Your task to perform on an android device: set the timer Image 0: 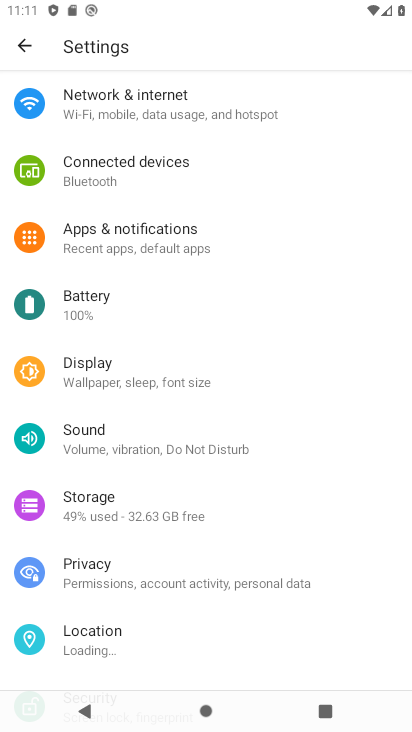
Step 0: drag from (190, 647) to (288, 405)
Your task to perform on an android device: set the timer Image 1: 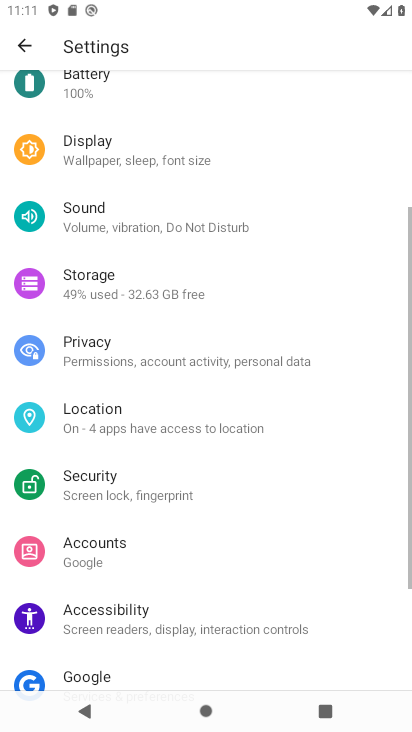
Step 1: press home button
Your task to perform on an android device: set the timer Image 2: 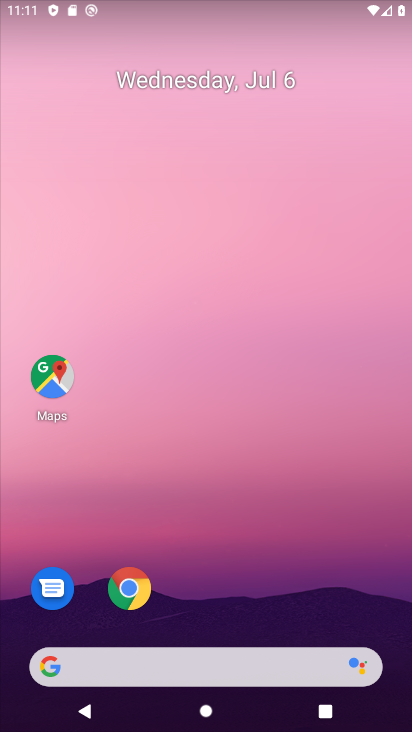
Step 2: drag from (205, 618) to (341, 176)
Your task to perform on an android device: set the timer Image 3: 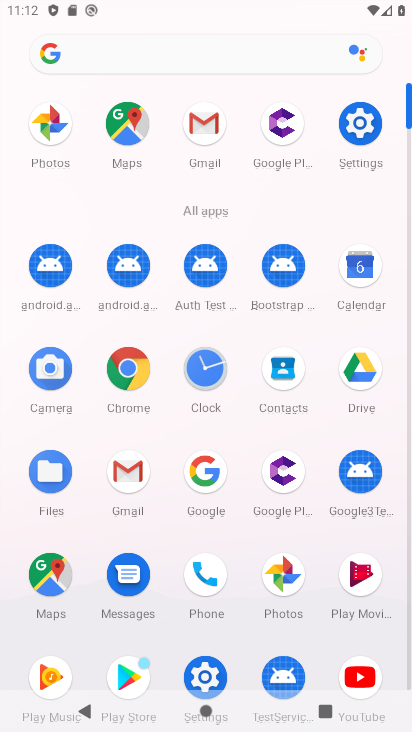
Step 3: click (193, 373)
Your task to perform on an android device: set the timer Image 4: 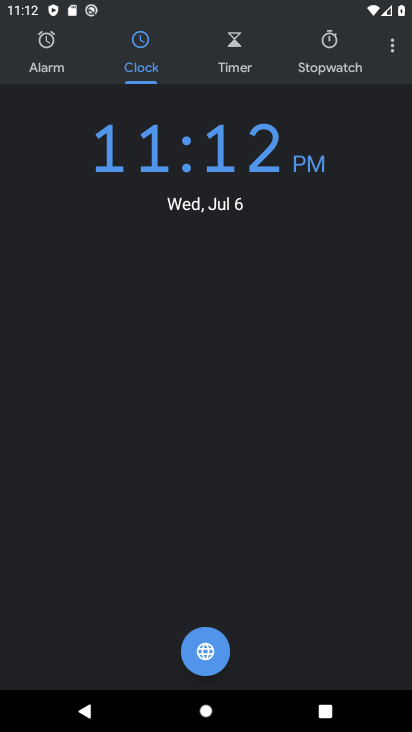
Step 4: click (260, 69)
Your task to perform on an android device: set the timer Image 5: 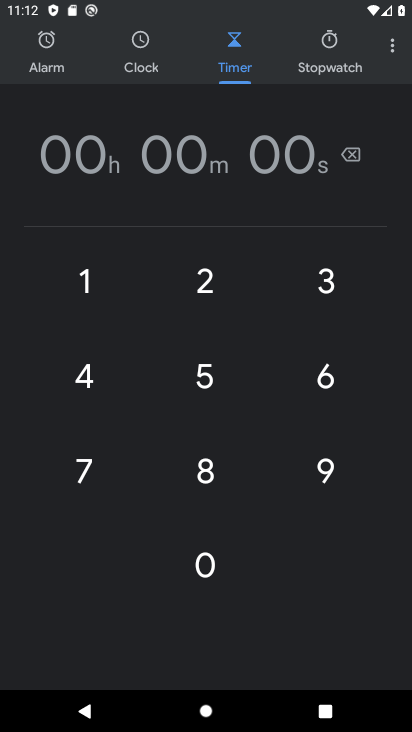
Step 5: click (206, 268)
Your task to perform on an android device: set the timer Image 6: 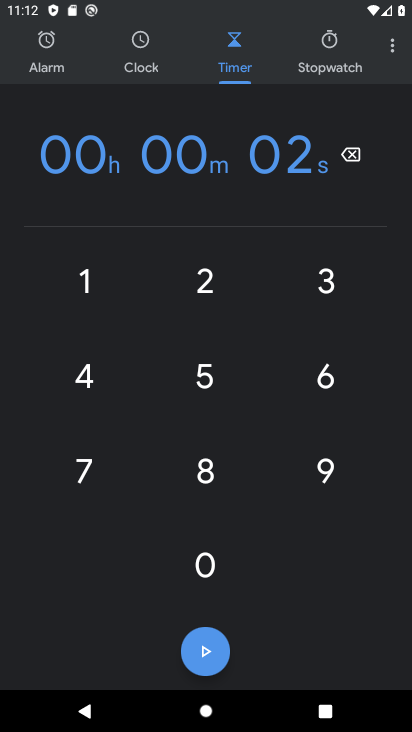
Step 6: click (336, 280)
Your task to perform on an android device: set the timer Image 7: 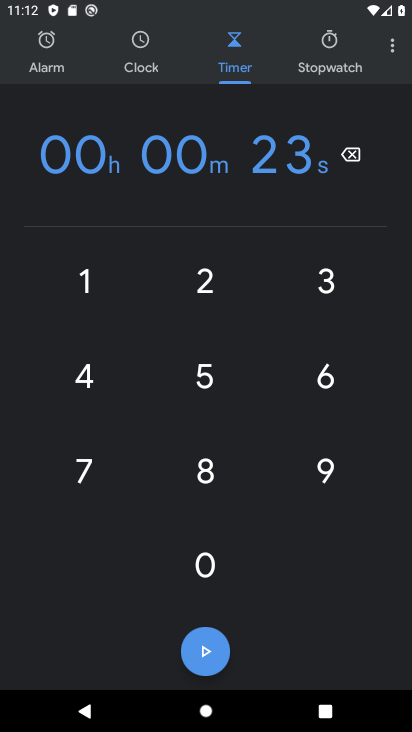
Step 7: click (208, 644)
Your task to perform on an android device: set the timer Image 8: 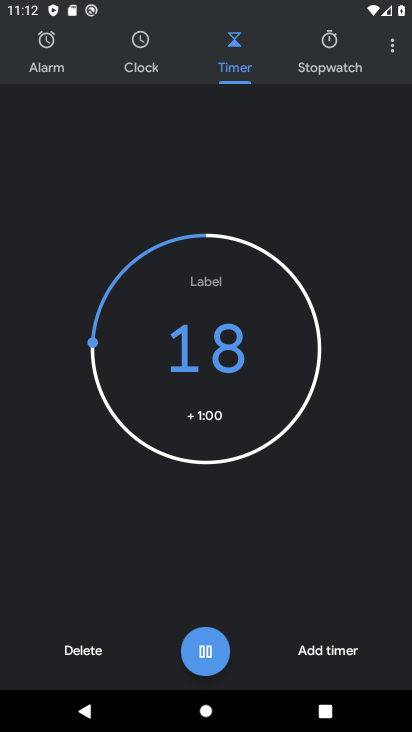
Step 8: task complete